Your task to perform on an android device: Go to Wikipedia Image 0: 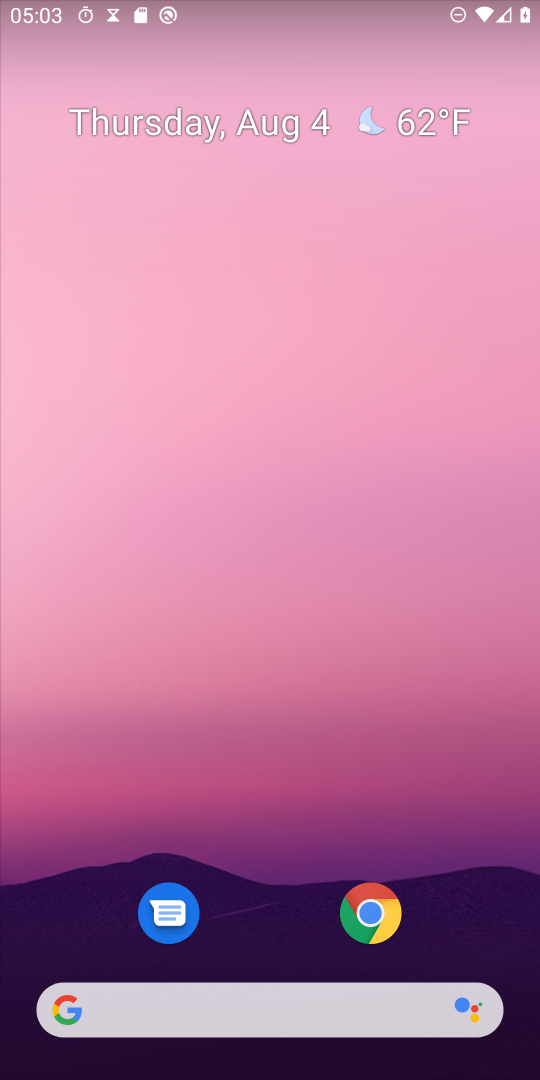
Step 0: drag from (315, 820) to (386, 62)
Your task to perform on an android device: Go to Wikipedia Image 1: 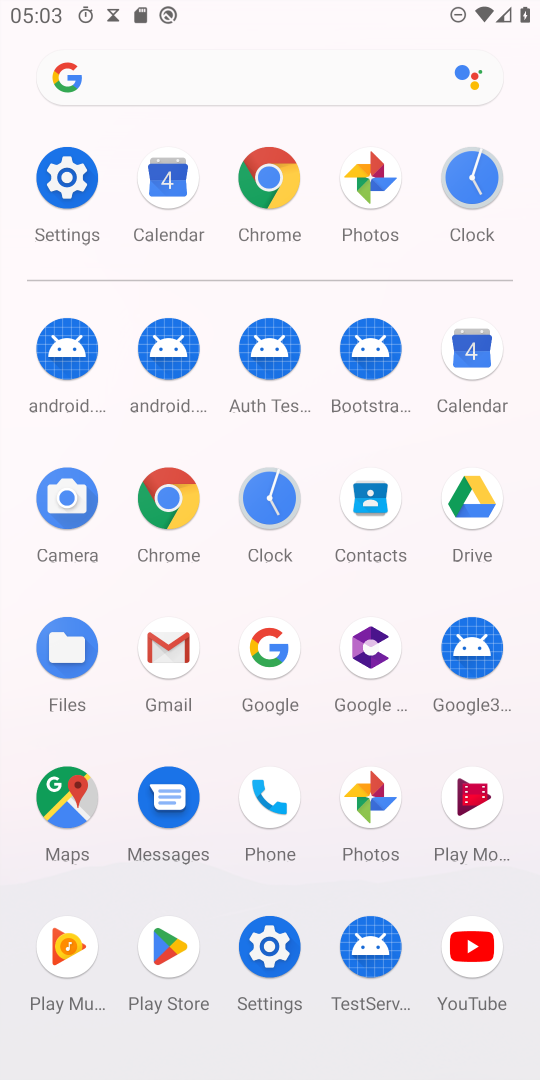
Step 1: click (176, 486)
Your task to perform on an android device: Go to Wikipedia Image 2: 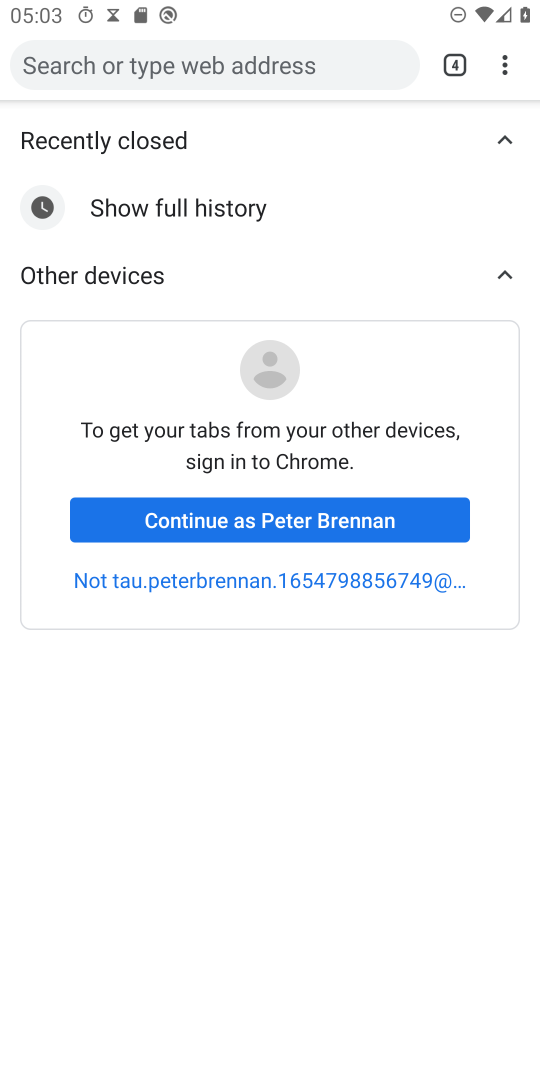
Step 2: click (243, 68)
Your task to perform on an android device: Go to Wikipedia Image 3: 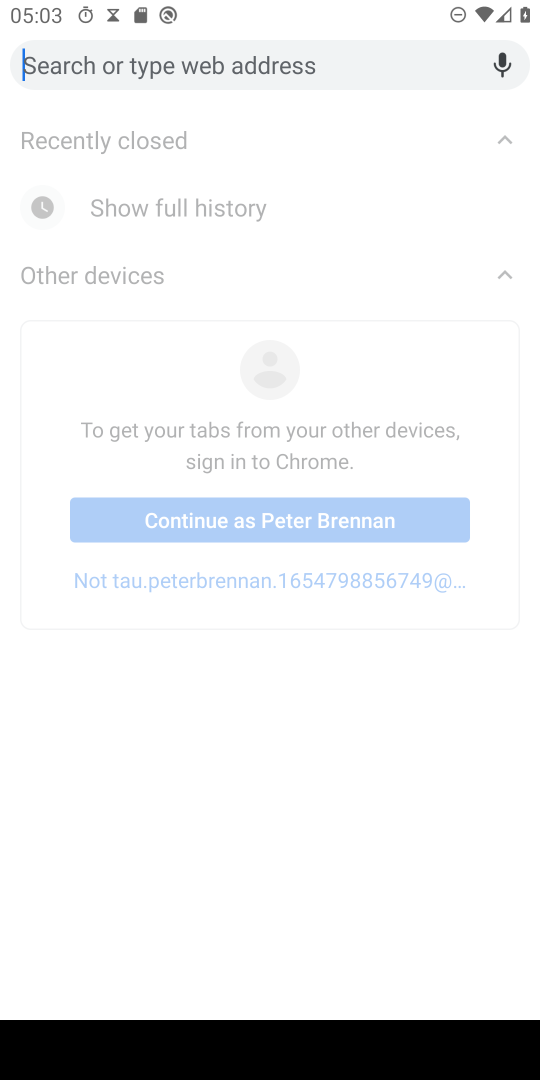
Step 3: type "wikipedia"
Your task to perform on an android device: Go to Wikipedia Image 4: 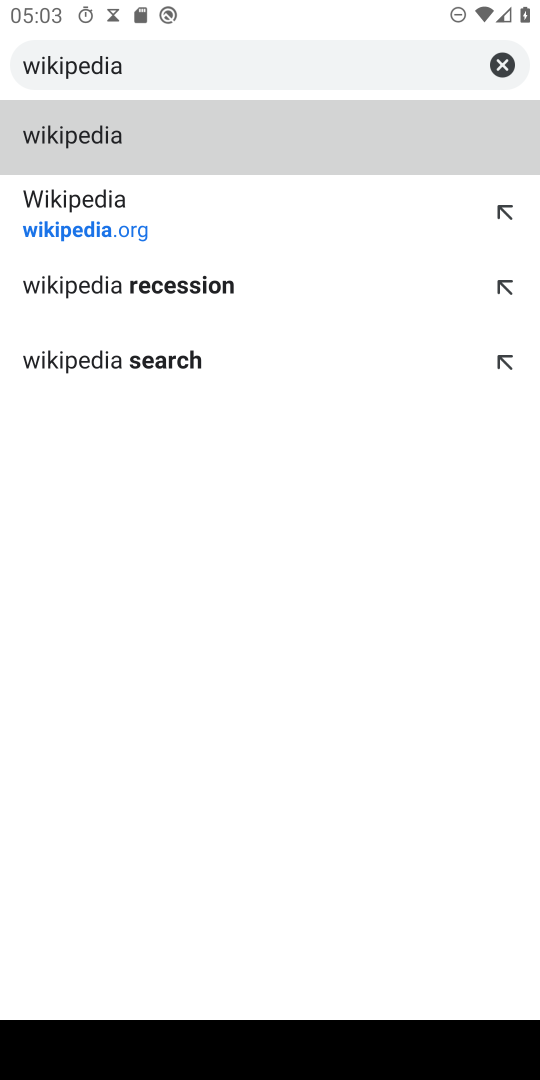
Step 4: click (92, 211)
Your task to perform on an android device: Go to Wikipedia Image 5: 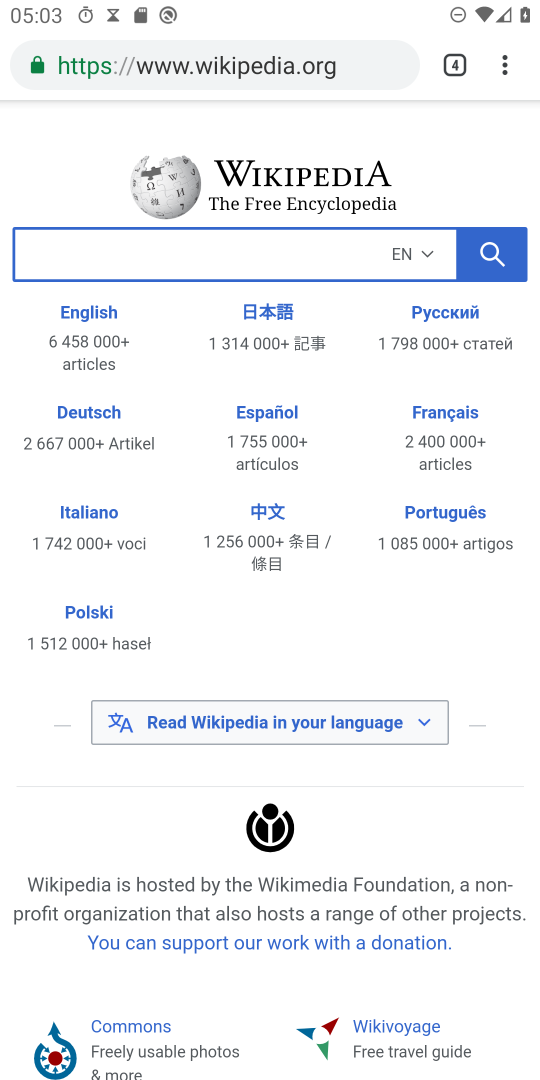
Step 5: task complete